Your task to perform on an android device: Open maps Image 0: 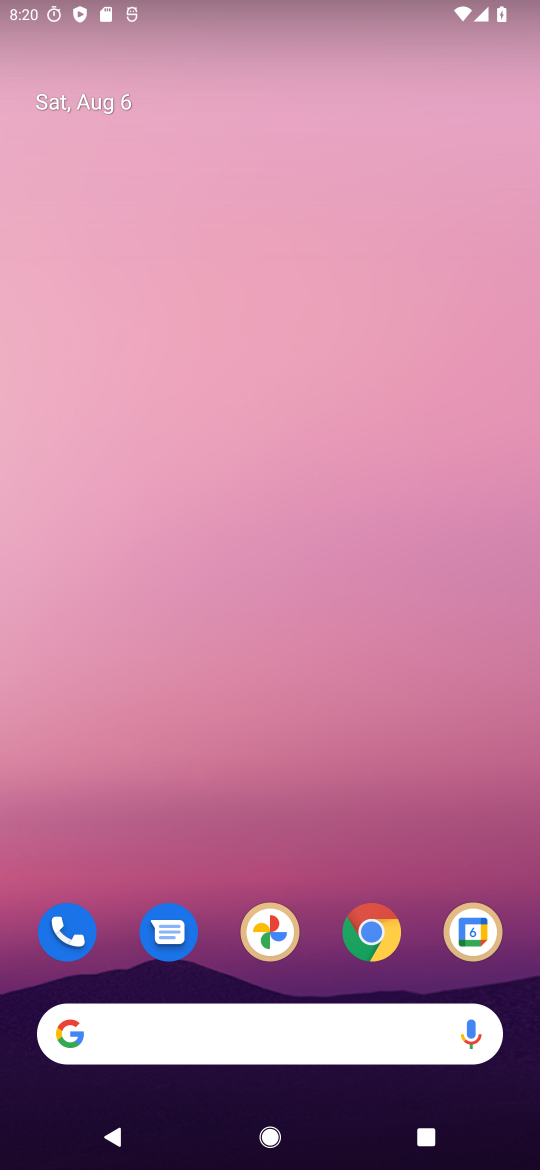
Step 0: drag from (246, 1039) to (461, 77)
Your task to perform on an android device: Open maps Image 1: 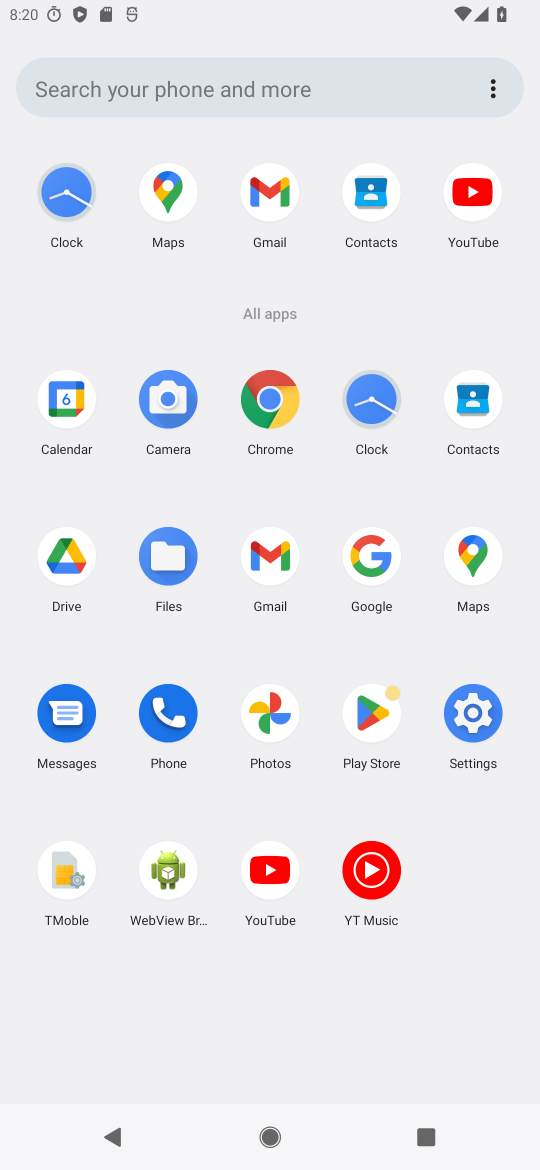
Step 1: click (478, 545)
Your task to perform on an android device: Open maps Image 2: 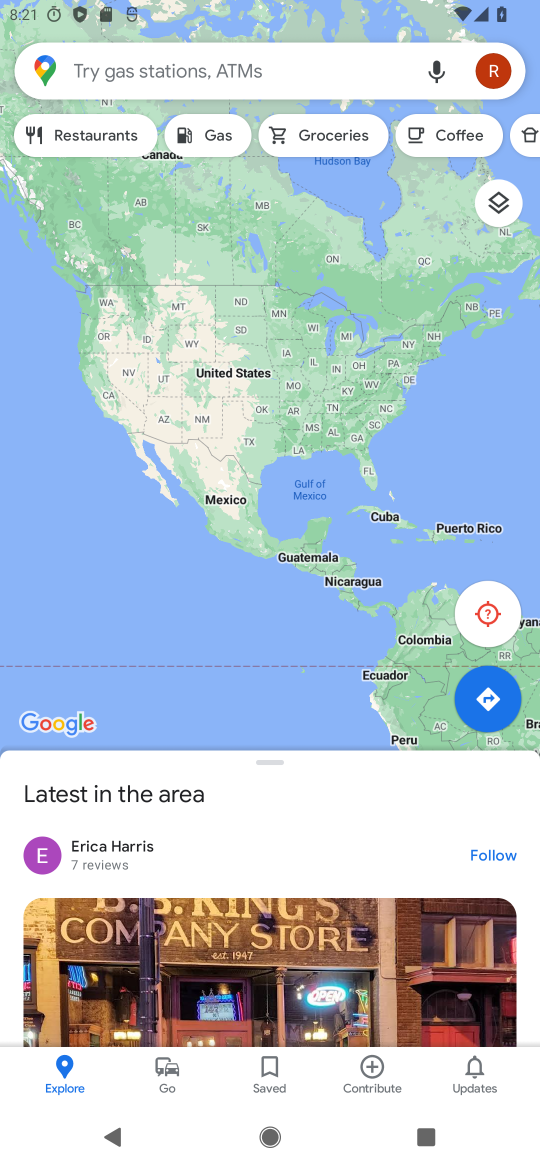
Step 2: task complete